Your task to perform on an android device: open wifi settings Image 0: 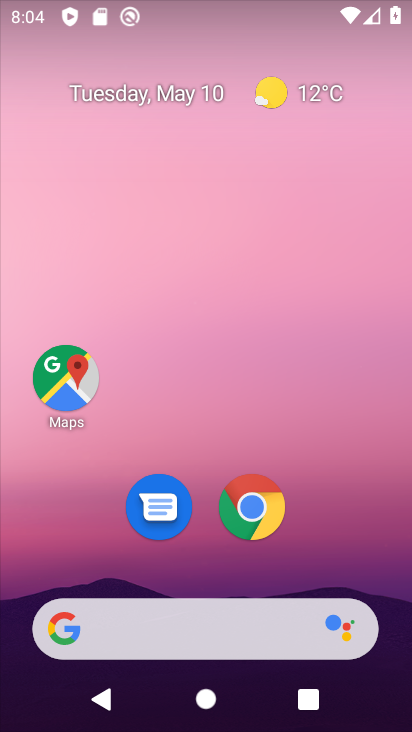
Step 0: drag from (169, 597) to (335, 94)
Your task to perform on an android device: open wifi settings Image 1: 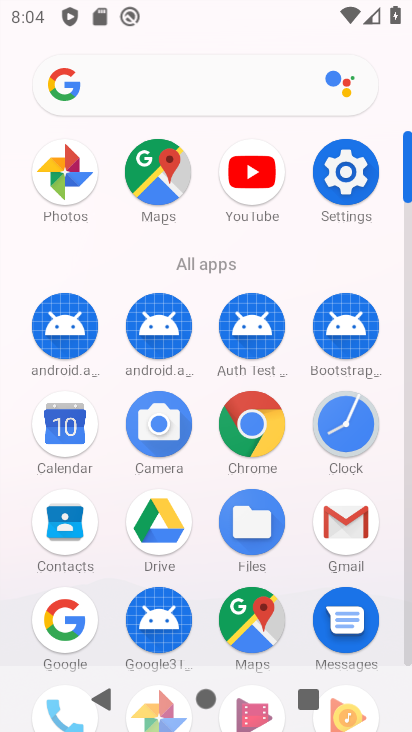
Step 1: click (353, 170)
Your task to perform on an android device: open wifi settings Image 2: 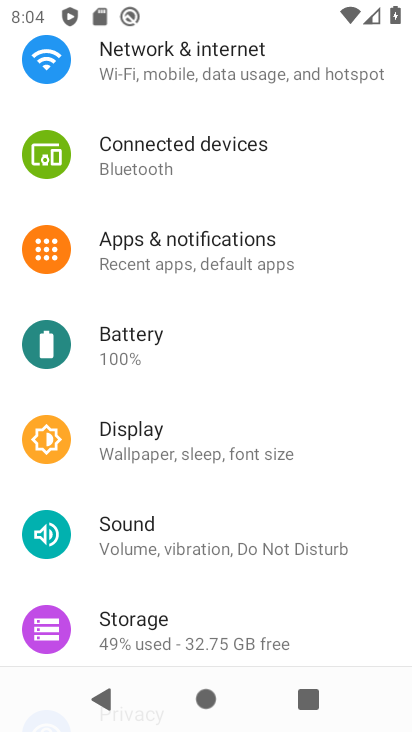
Step 2: drag from (275, 214) to (229, 461)
Your task to perform on an android device: open wifi settings Image 3: 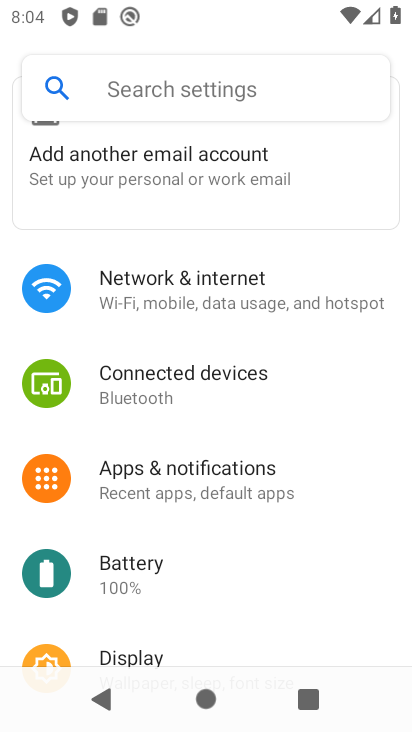
Step 3: click (221, 320)
Your task to perform on an android device: open wifi settings Image 4: 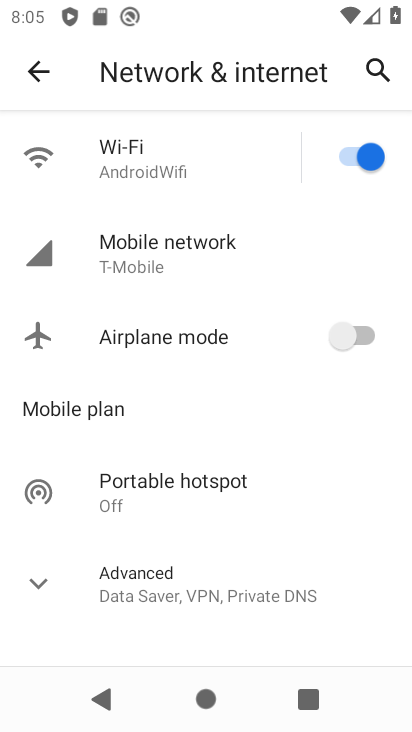
Step 4: click (167, 169)
Your task to perform on an android device: open wifi settings Image 5: 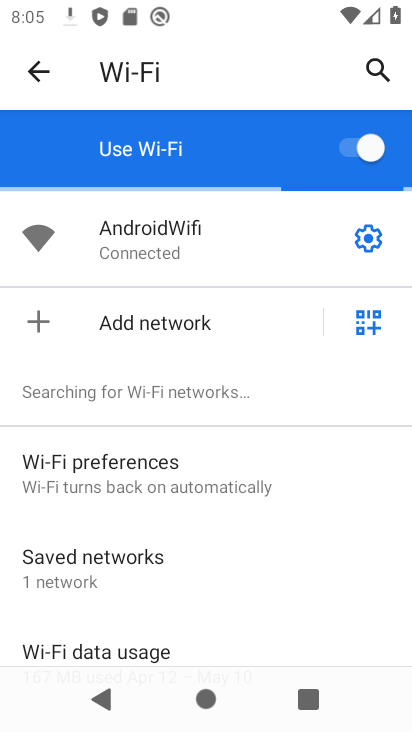
Step 5: task complete